Your task to perform on an android device: turn off priority inbox in the gmail app Image 0: 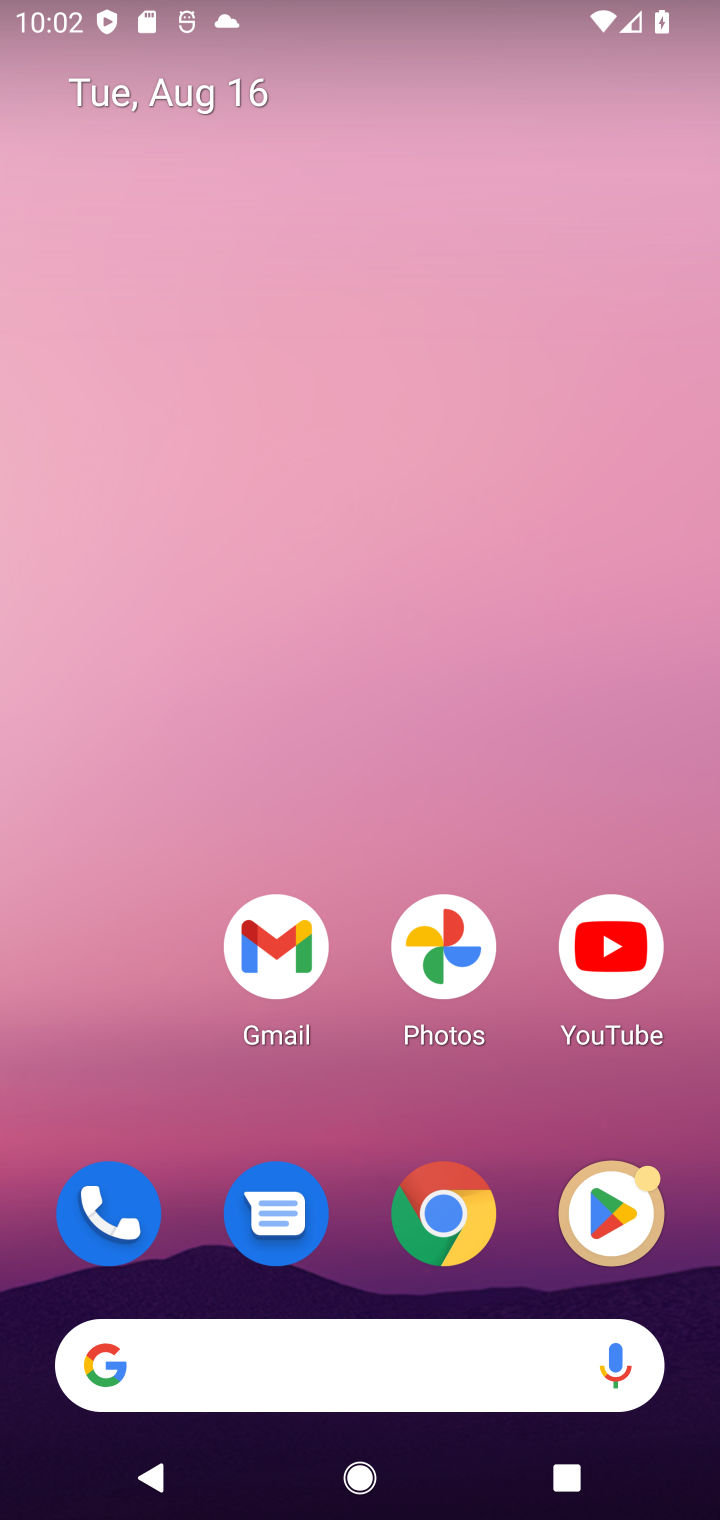
Step 0: drag from (267, 1155) to (320, 298)
Your task to perform on an android device: turn off priority inbox in the gmail app Image 1: 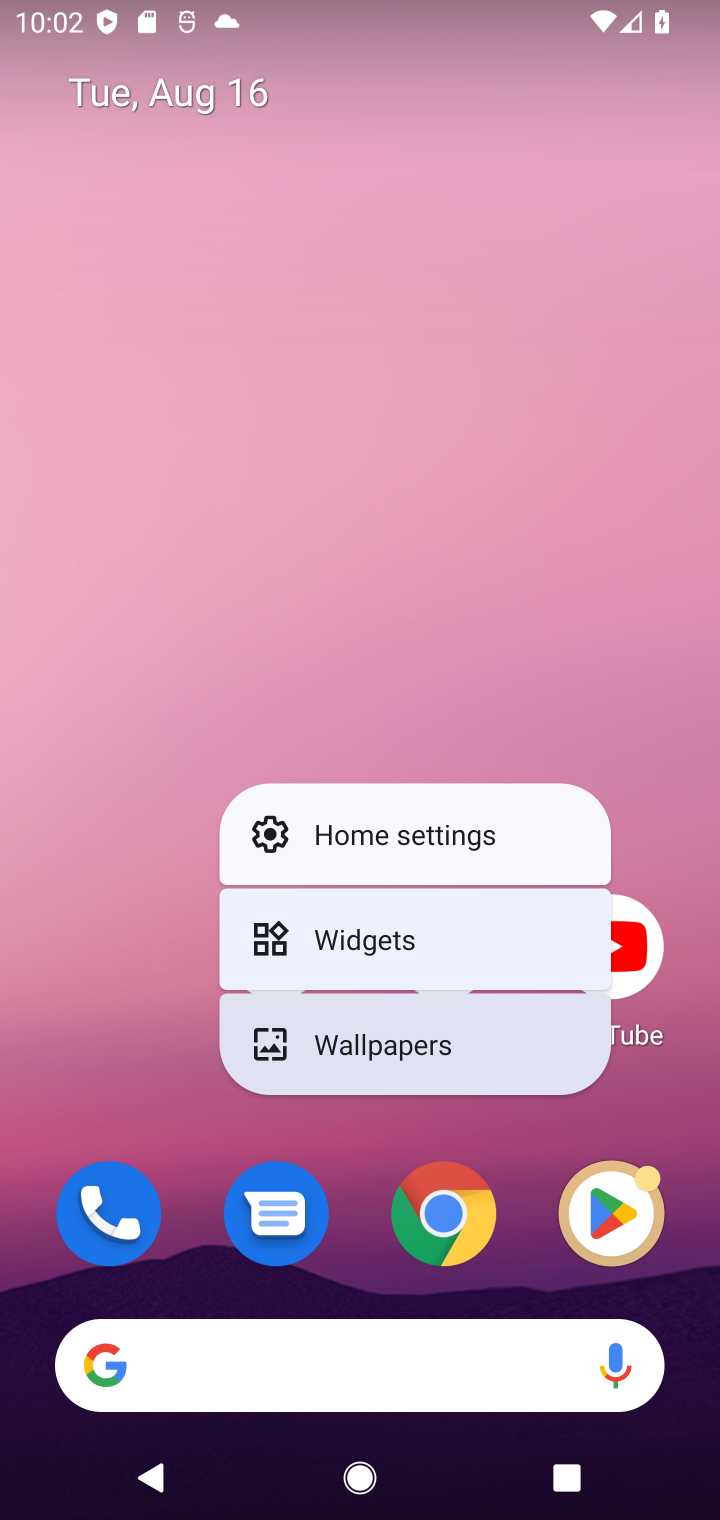
Step 1: click (113, 920)
Your task to perform on an android device: turn off priority inbox in the gmail app Image 2: 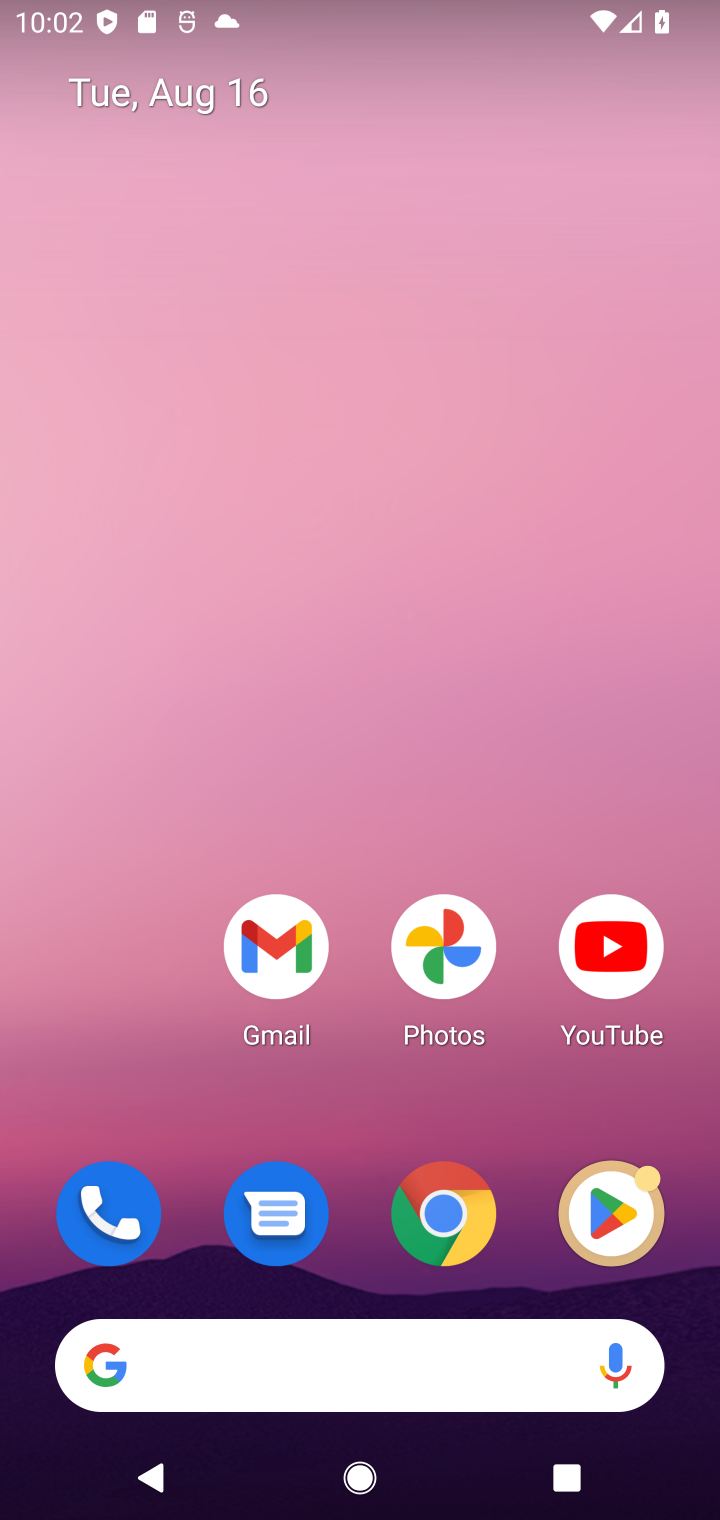
Step 2: drag from (343, 838) to (192, 570)
Your task to perform on an android device: turn off priority inbox in the gmail app Image 3: 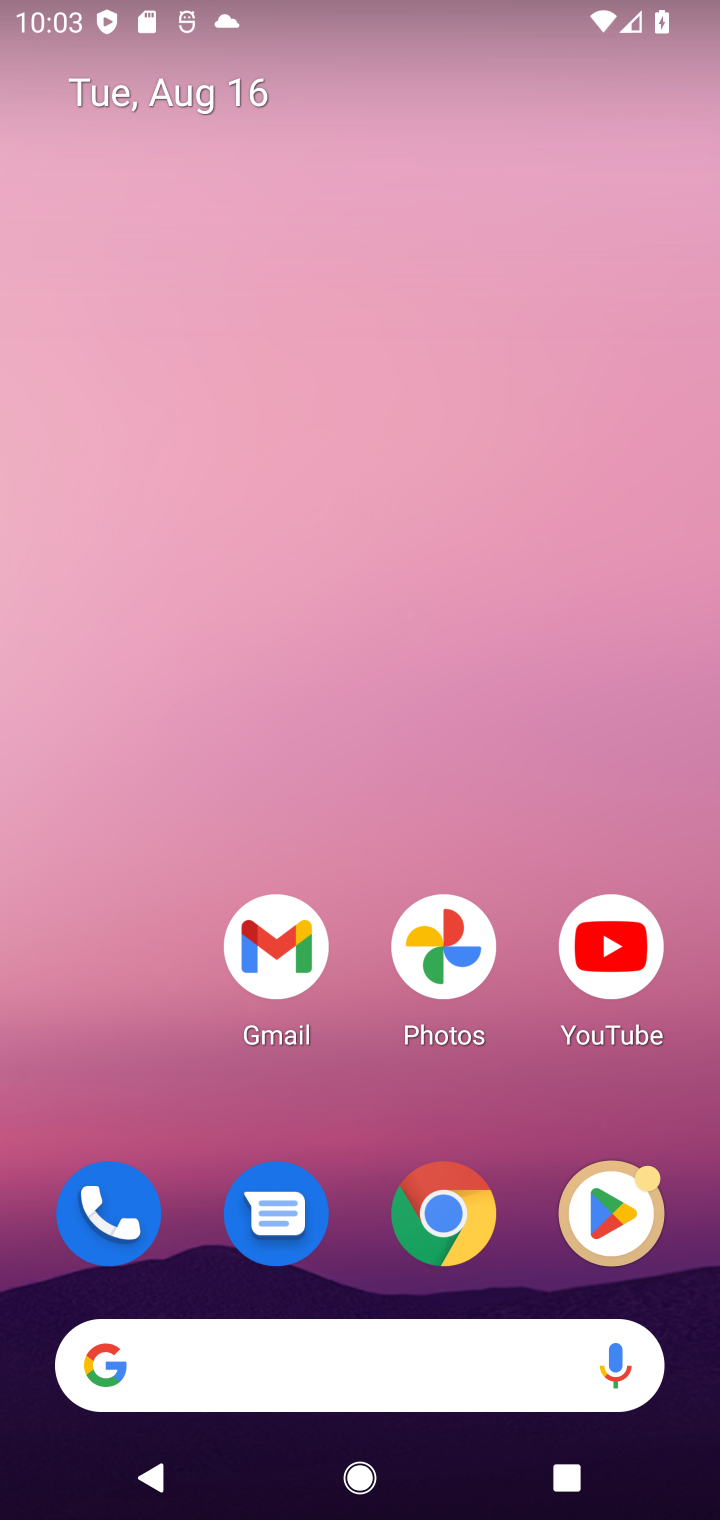
Step 3: drag from (421, 1282) to (383, 741)
Your task to perform on an android device: turn off priority inbox in the gmail app Image 4: 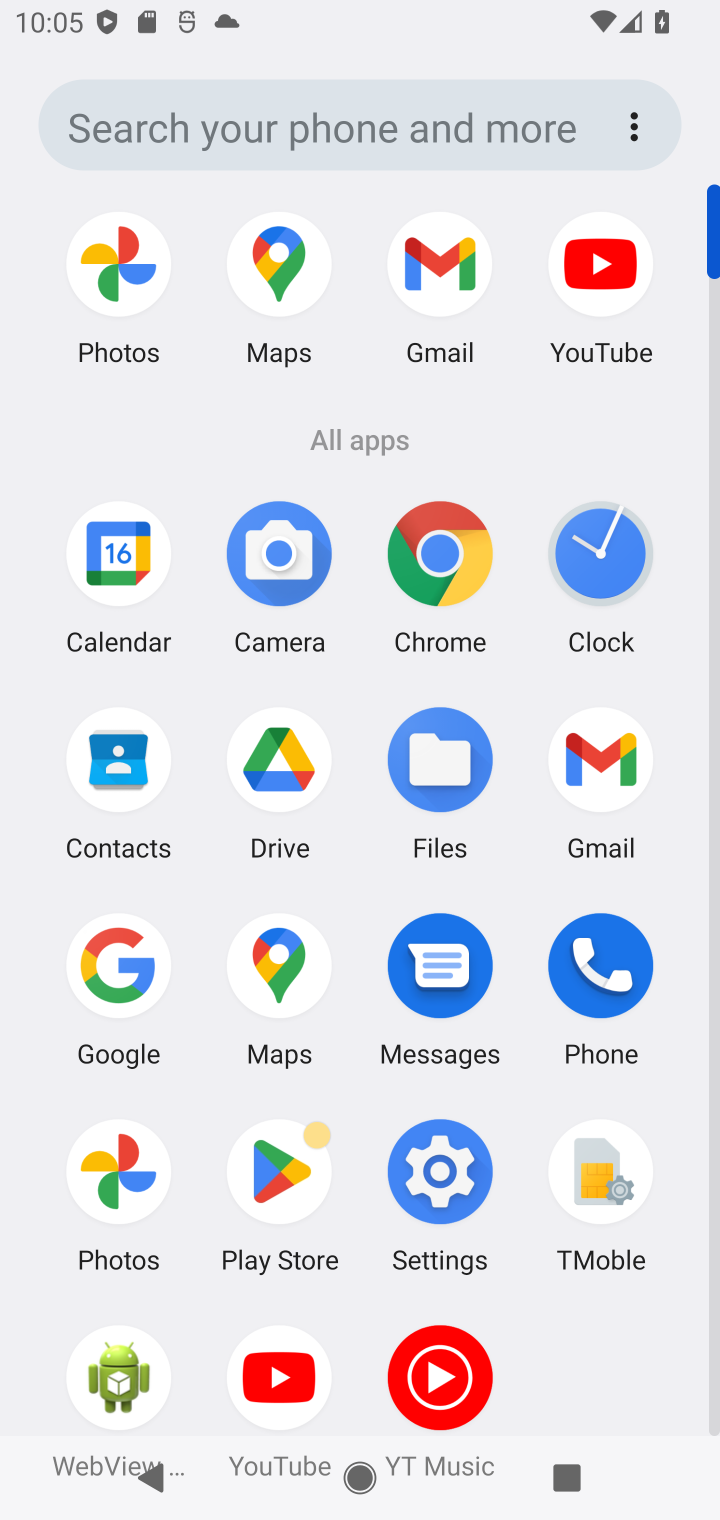
Step 4: click (589, 754)
Your task to perform on an android device: turn off priority inbox in the gmail app Image 5: 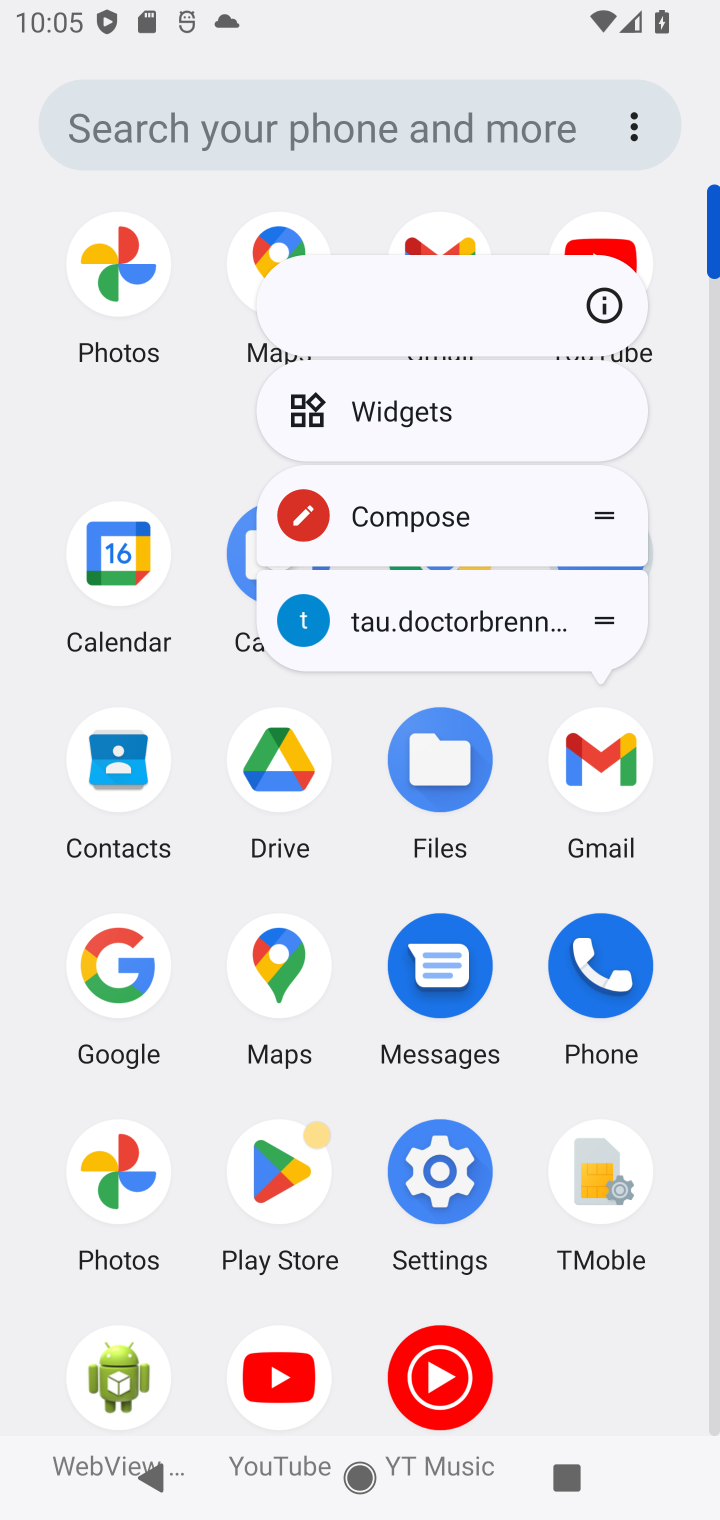
Step 5: click (590, 750)
Your task to perform on an android device: turn off priority inbox in the gmail app Image 6: 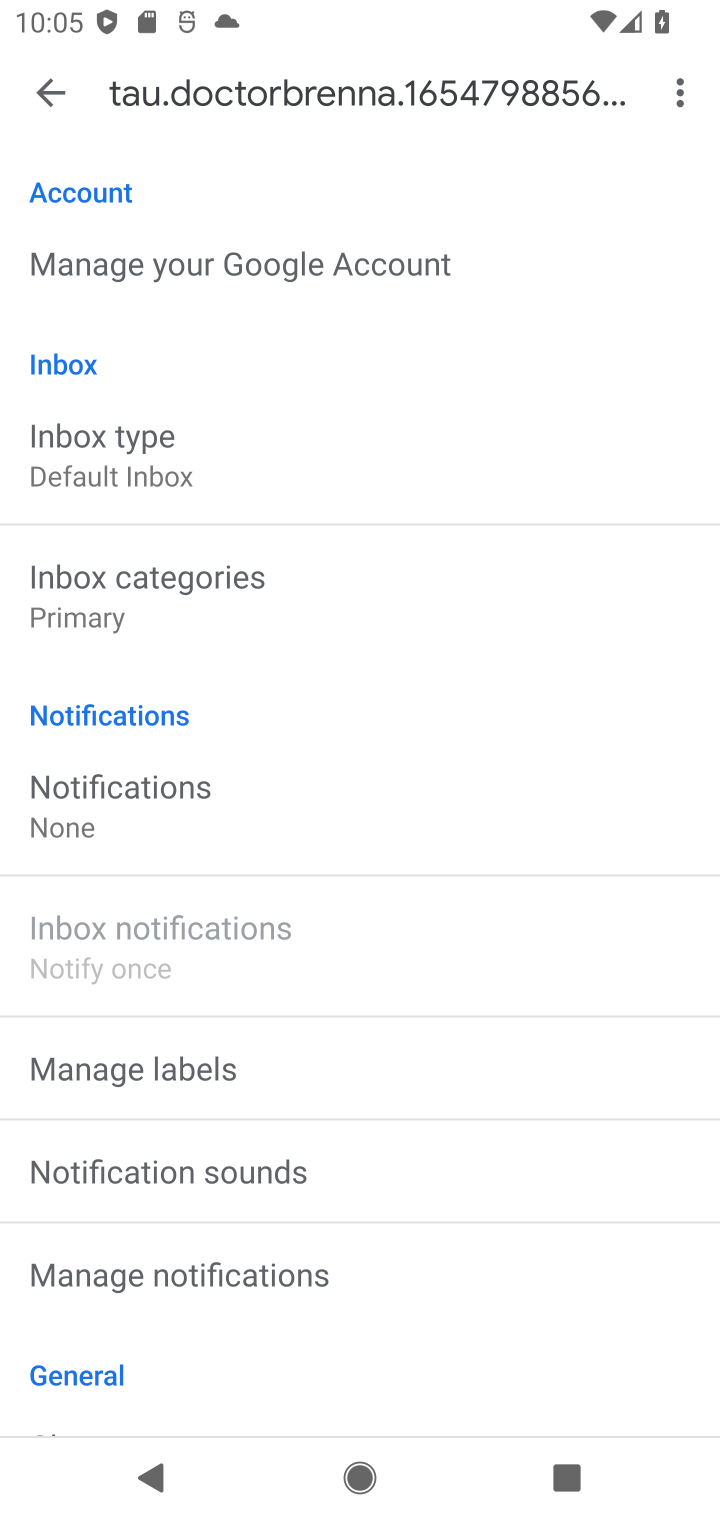
Step 6: click (166, 433)
Your task to perform on an android device: turn off priority inbox in the gmail app Image 7: 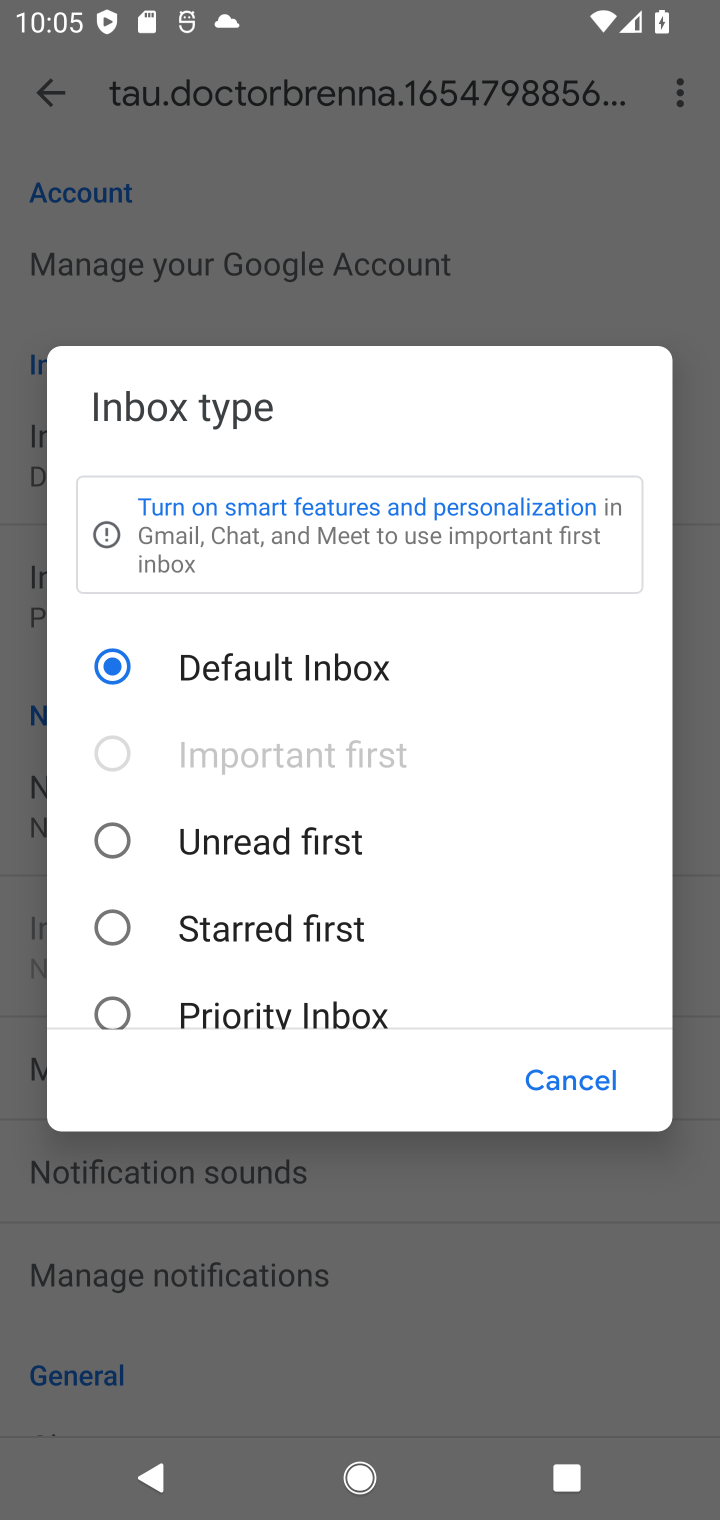
Step 7: task complete